Your task to perform on an android device: Open privacy settings Image 0: 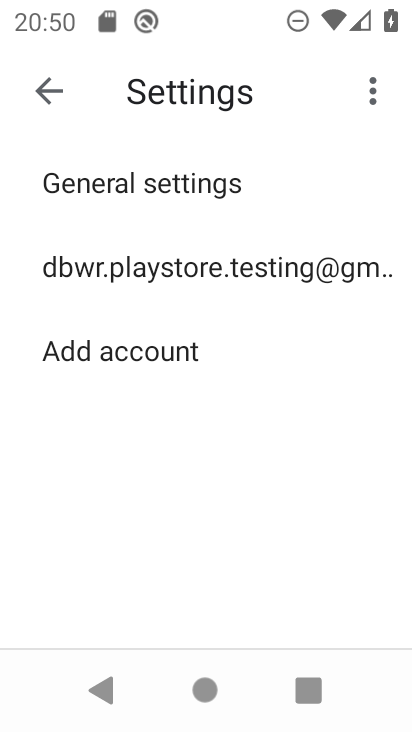
Step 0: press home button
Your task to perform on an android device: Open privacy settings Image 1: 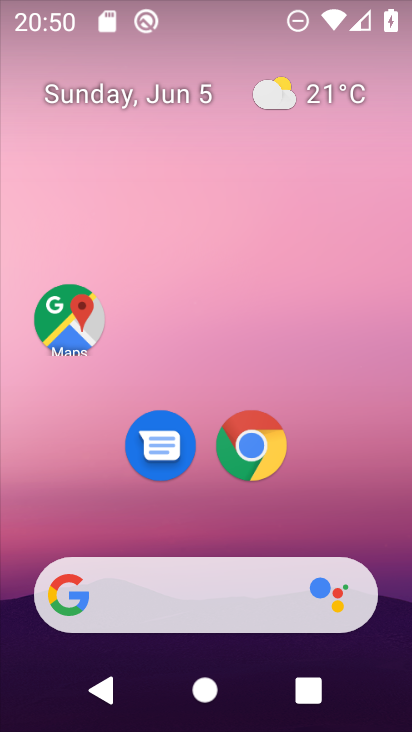
Step 1: drag from (379, 539) to (344, 144)
Your task to perform on an android device: Open privacy settings Image 2: 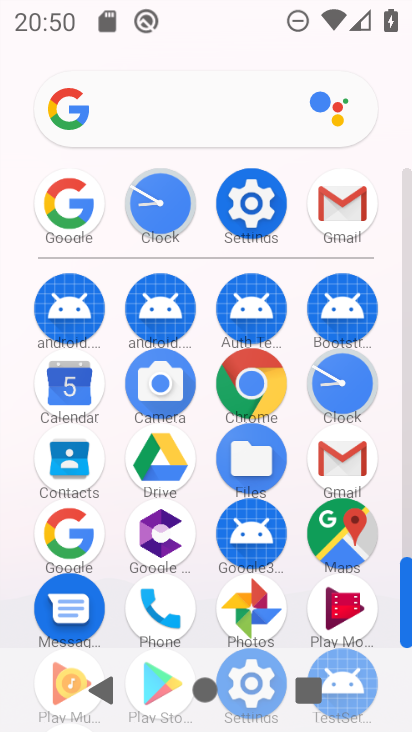
Step 2: click (268, 199)
Your task to perform on an android device: Open privacy settings Image 3: 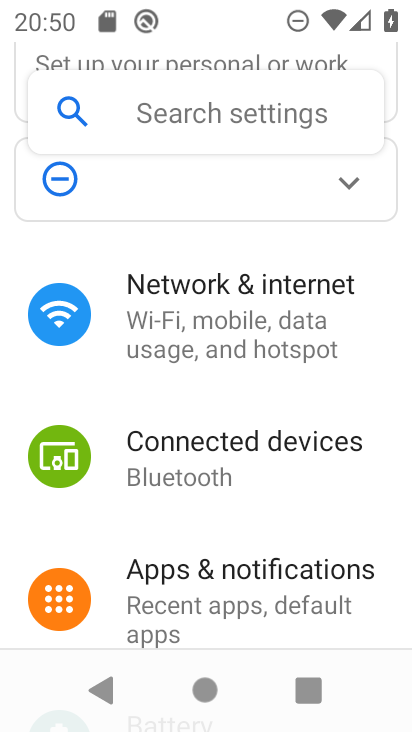
Step 3: drag from (41, 534) to (118, 112)
Your task to perform on an android device: Open privacy settings Image 4: 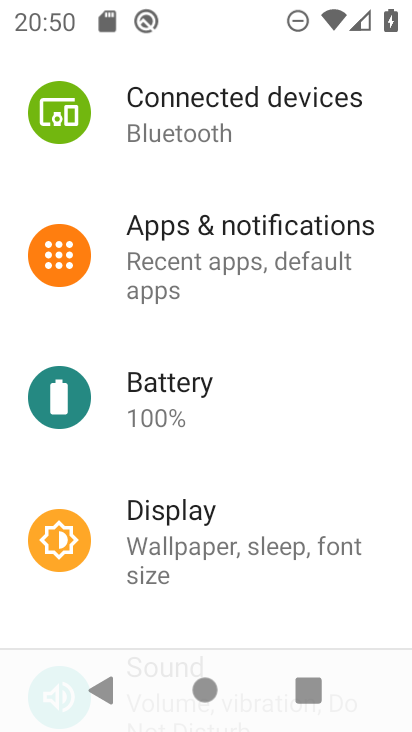
Step 4: drag from (84, 614) to (143, 173)
Your task to perform on an android device: Open privacy settings Image 5: 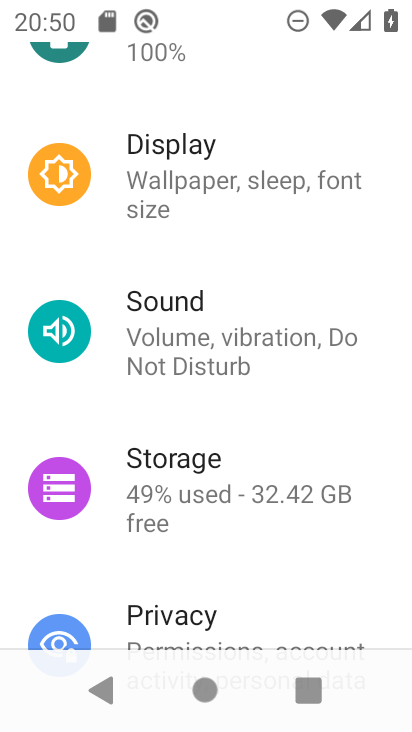
Step 5: click (167, 618)
Your task to perform on an android device: Open privacy settings Image 6: 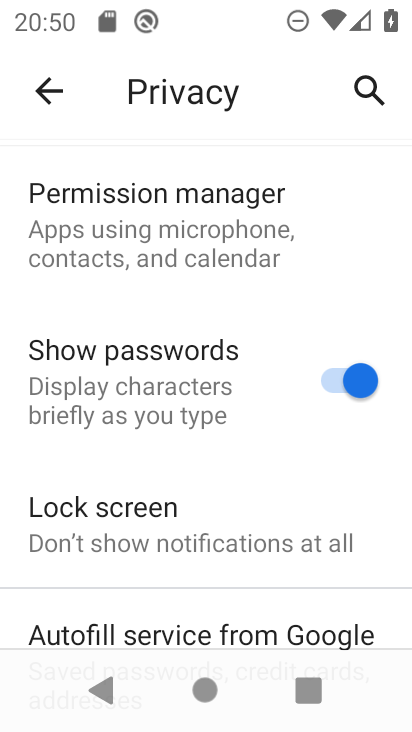
Step 6: task complete